Your task to perform on an android device: Open calendar and show me the fourth week of next month Image 0: 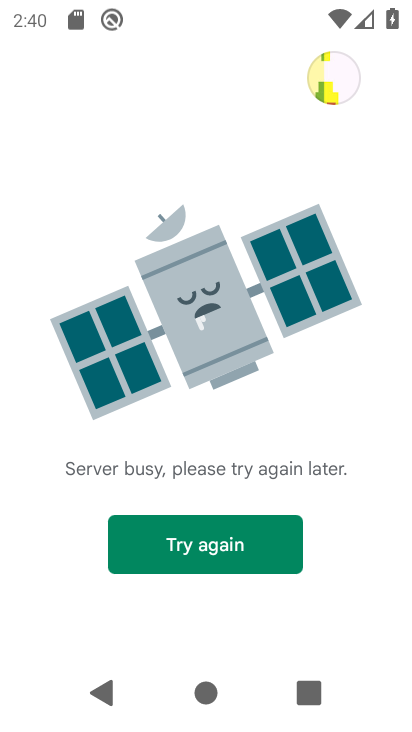
Step 0: press home button
Your task to perform on an android device: Open calendar and show me the fourth week of next month Image 1: 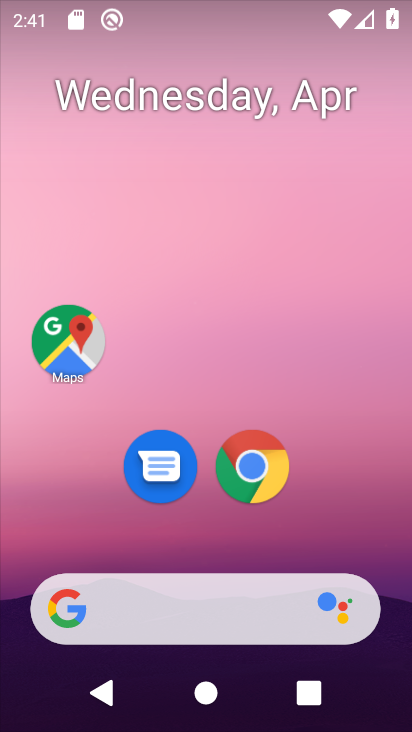
Step 1: drag from (191, 436) to (291, 17)
Your task to perform on an android device: Open calendar and show me the fourth week of next month Image 2: 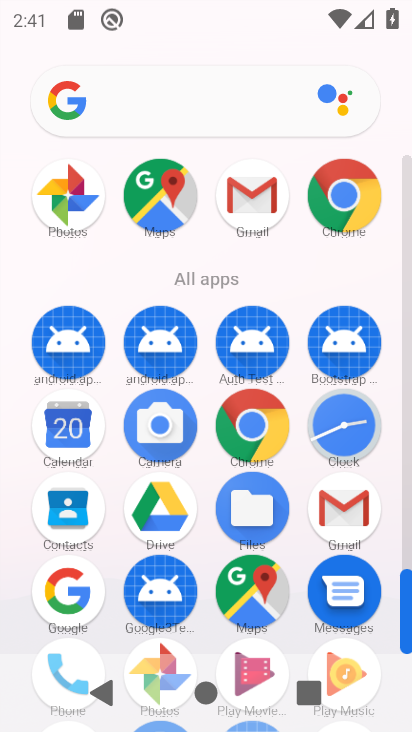
Step 2: click (63, 438)
Your task to perform on an android device: Open calendar and show me the fourth week of next month Image 3: 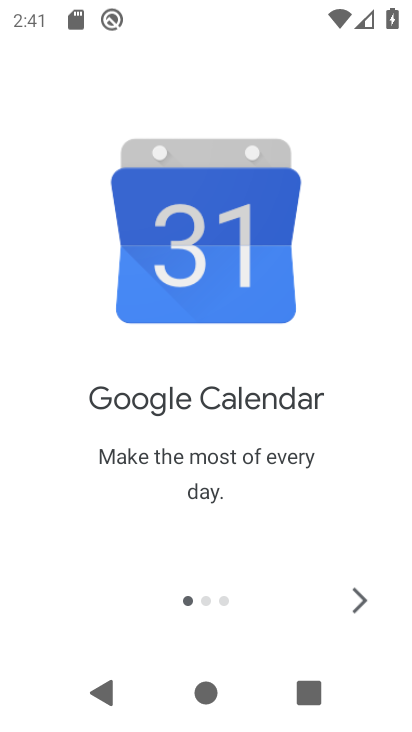
Step 3: click (350, 603)
Your task to perform on an android device: Open calendar and show me the fourth week of next month Image 4: 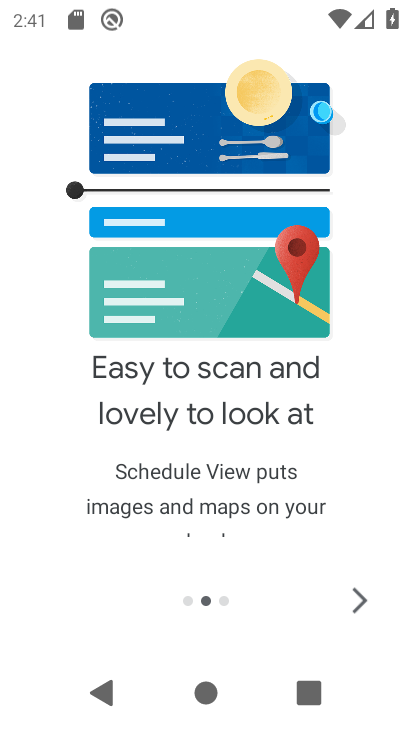
Step 4: click (363, 597)
Your task to perform on an android device: Open calendar and show me the fourth week of next month Image 5: 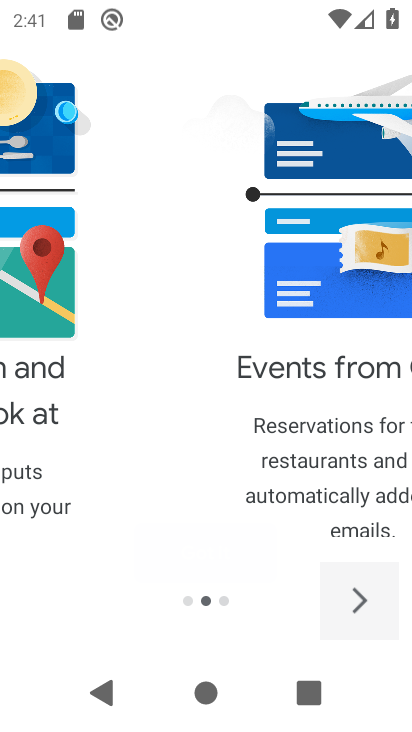
Step 5: click (360, 594)
Your task to perform on an android device: Open calendar and show me the fourth week of next month Image 6: 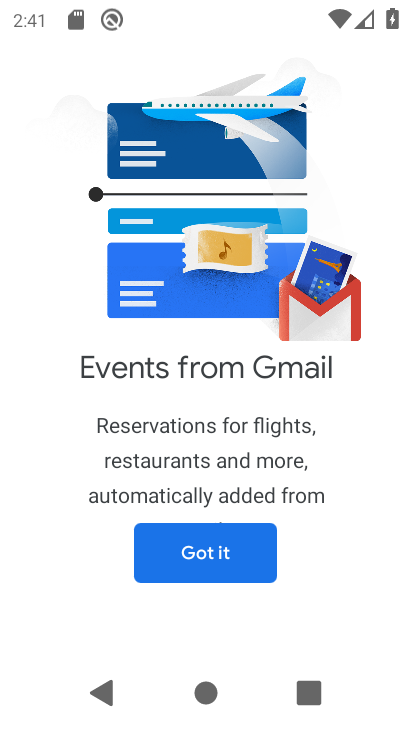
Step 6: click (203, 540)
Your task to perform on an android device: Open calendar and show me the fourth week of next month Image 7: 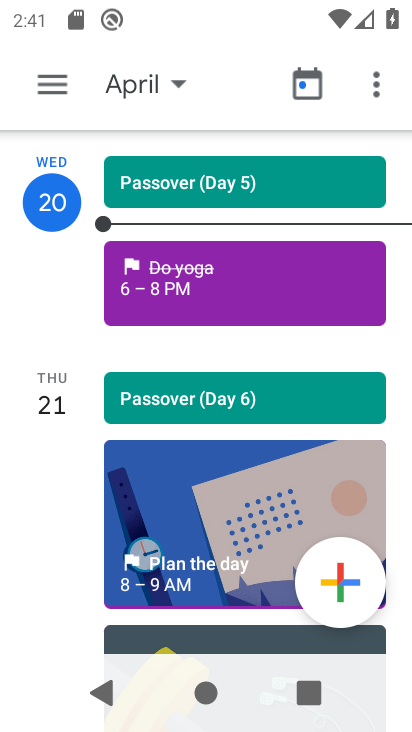
Step 7: click (46, 81)
Your task to perform on an android device: Open calendar and show me the fourth week of next month Image 8: 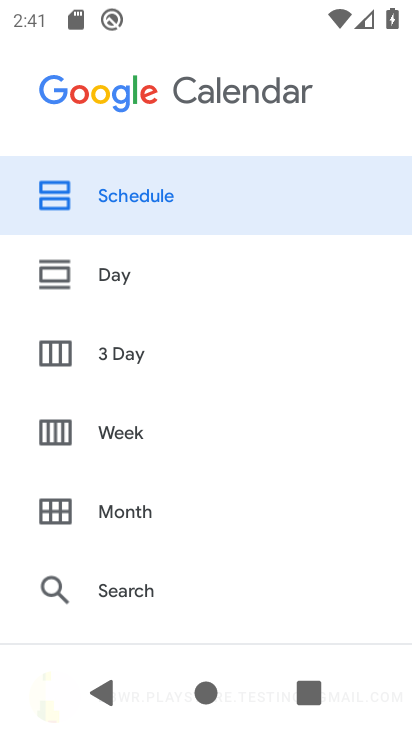
Step 8: click (127, 427)
Your task to perform on an android device: Open calendar and show me the fourth week of next month Image 9: 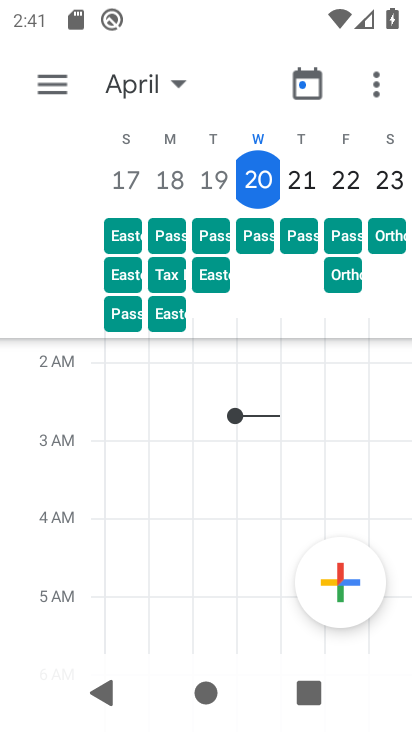
Step 9: click (176, 80)
Your task to perform on an android device: Open calendar and show me the fourth week of next month Image 10: 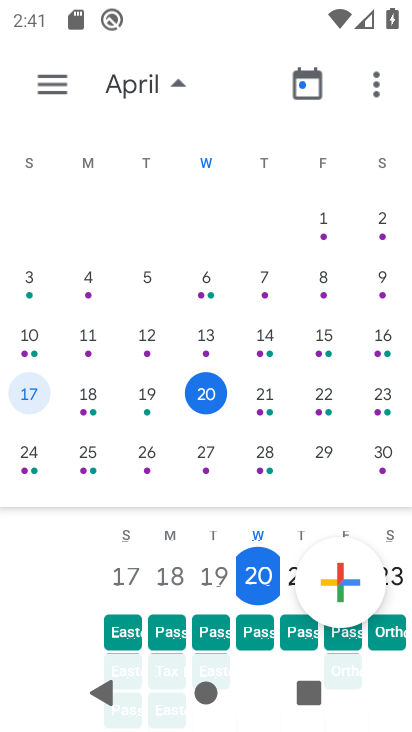
Step 10: drag from (388, 356) to (16, 357)
Your task to perform on an android device: Open calendar and show me the fourth week of next month Image 11: 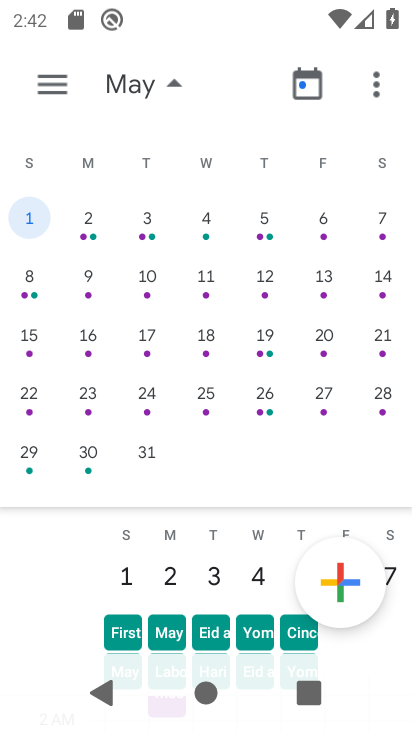
Step 11: click (144, 391)
Your task to perform on an android device: Open calendar and show me the fourth week of next month Image 12: 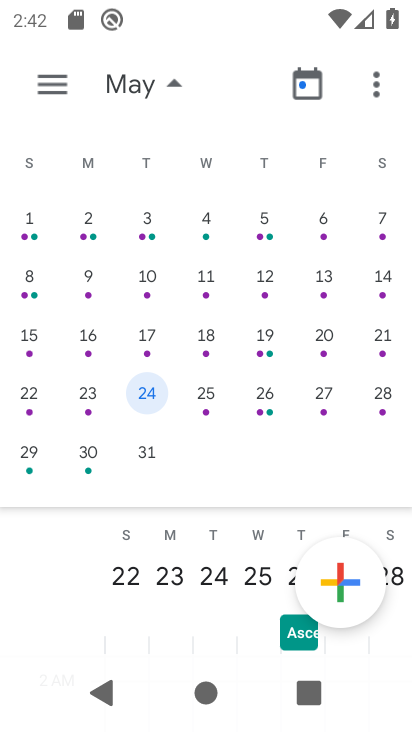
Step 12: task complete